Your task to perform on an android device: toggle notifications settings in the gmail app Image 0: 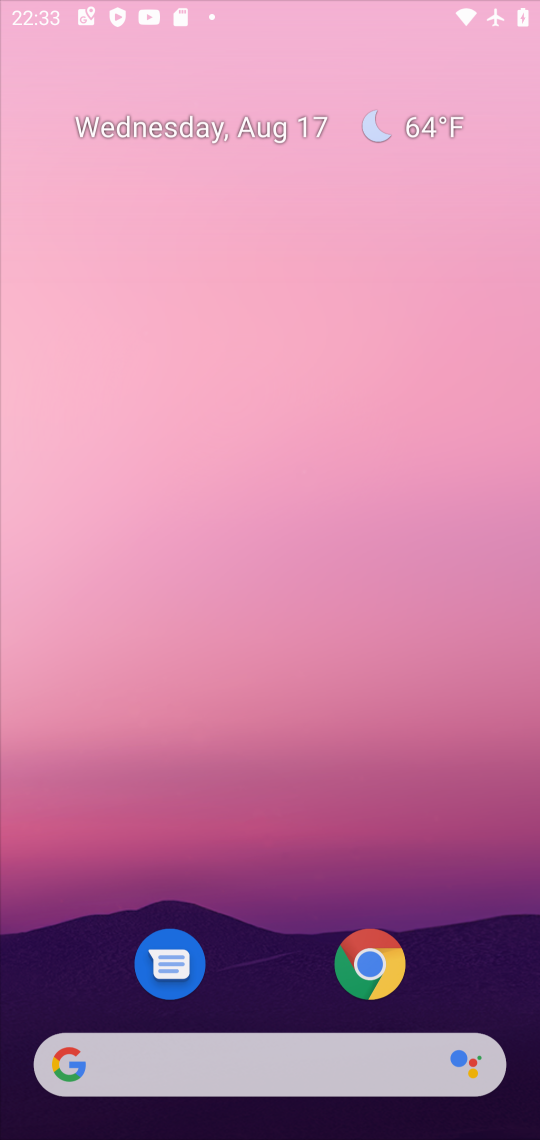
Step 0: press home button
Your task to perform on an android device: toggle notifications settings in the gmail app Image 1: 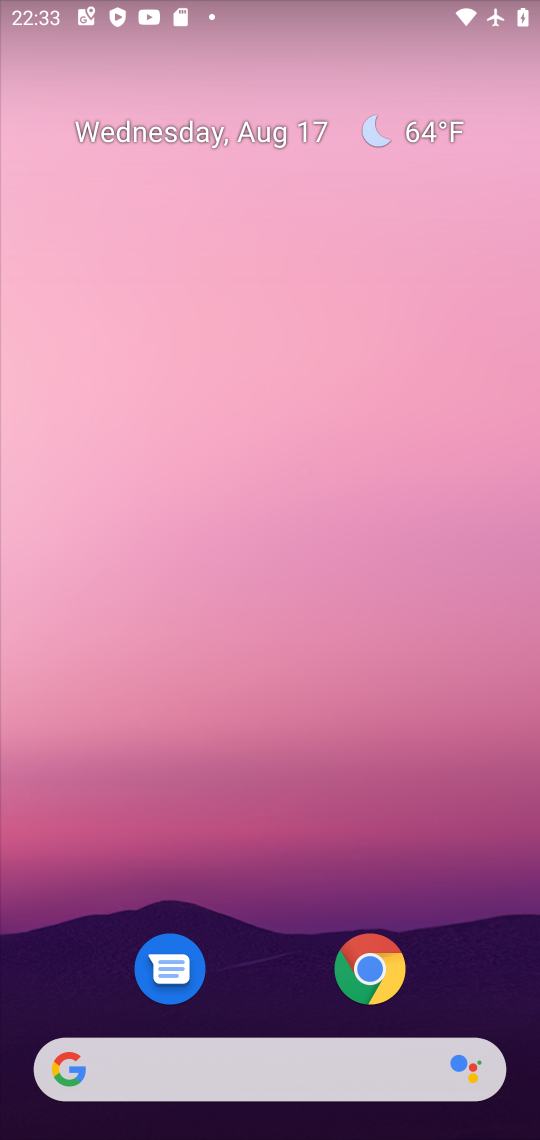
Step 1: drag from (270, 974) to (154, 266)
Your task to perform on an android device: toggle notifications settings in the gmail app Image 2: 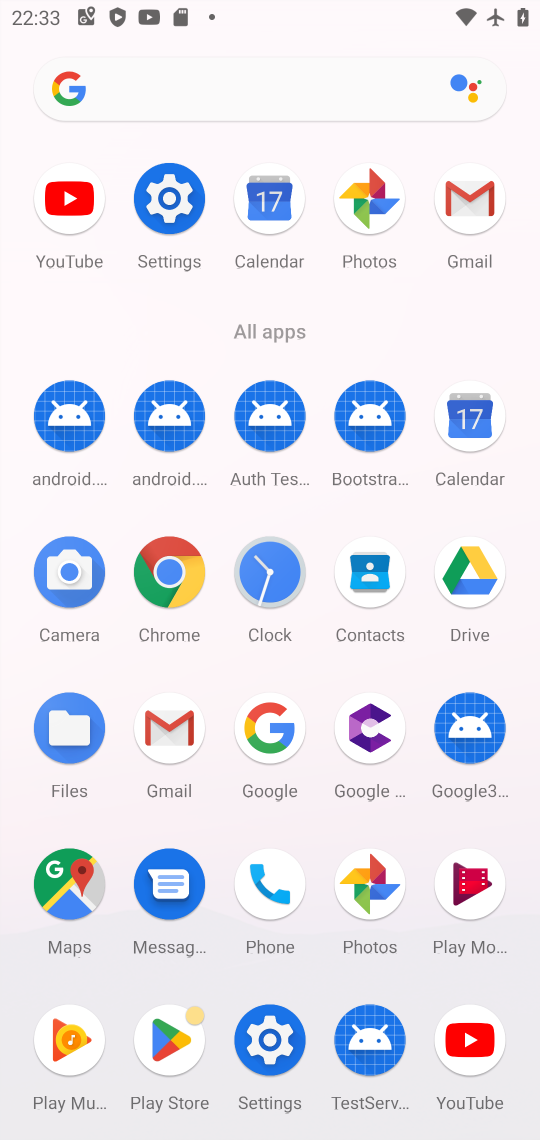
Step 2: click (464, 201)
Your task to perform on an android device: toggle notifications settings in the gmail app Image 3: 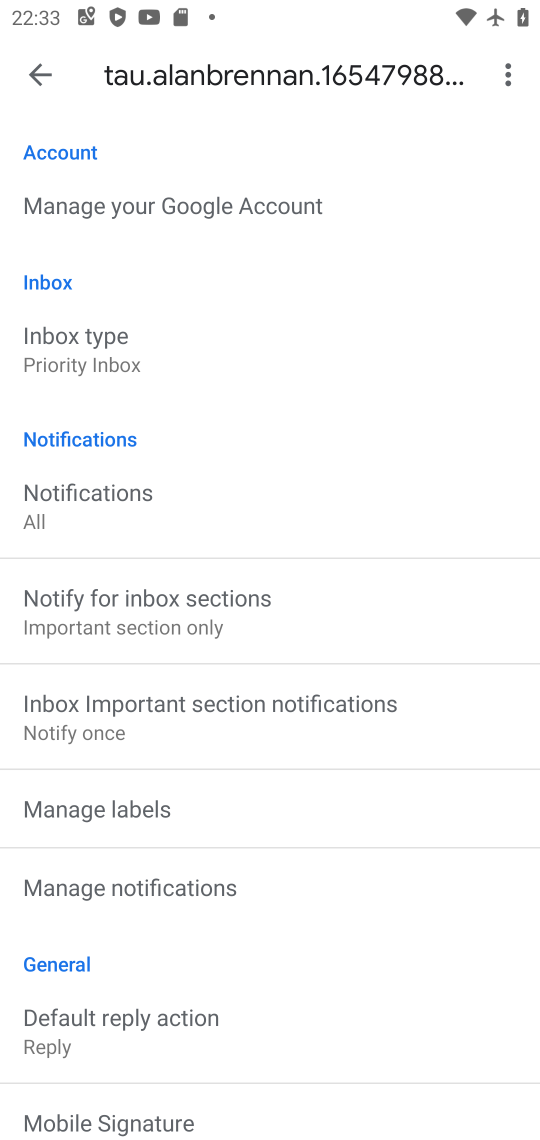
Step 3: click (38, 76)
Your task to perform on an android device: toggle notifications settings in the gmail app Image 4: 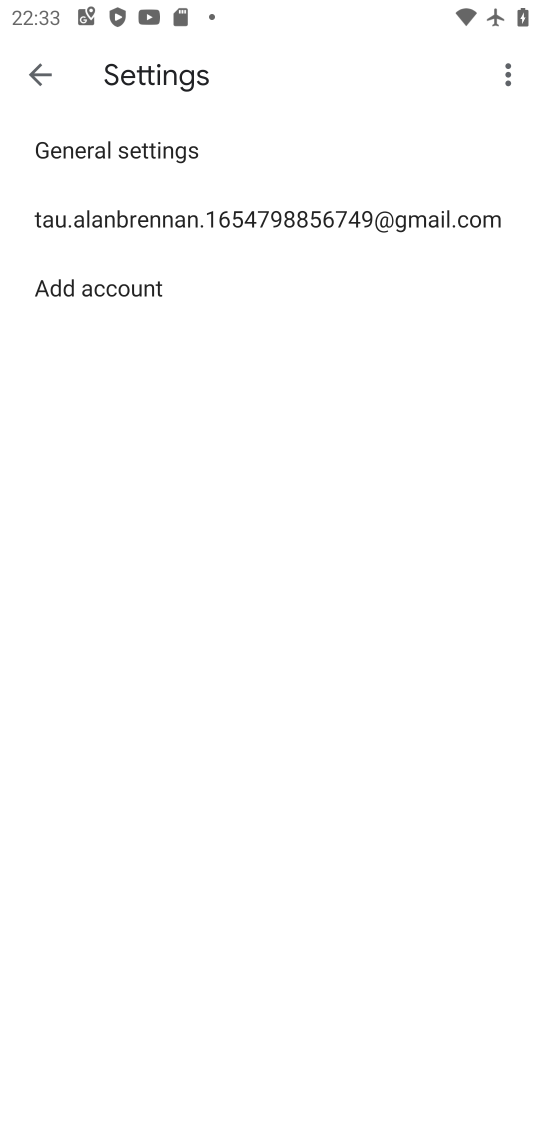
Step 4: click (79, 145)
Your task to perform on an android device: toggle notifications settings in the gmail app Image 5: 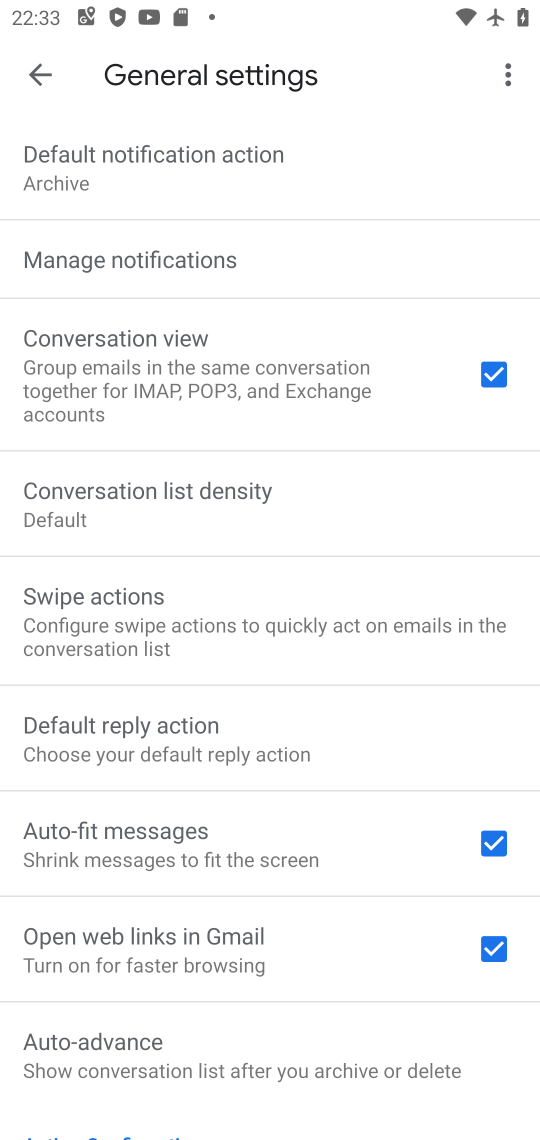
Step 5: click (108, 248)
Your task to perform on an android device: toggle notifications settings in the gmail app Image 6: 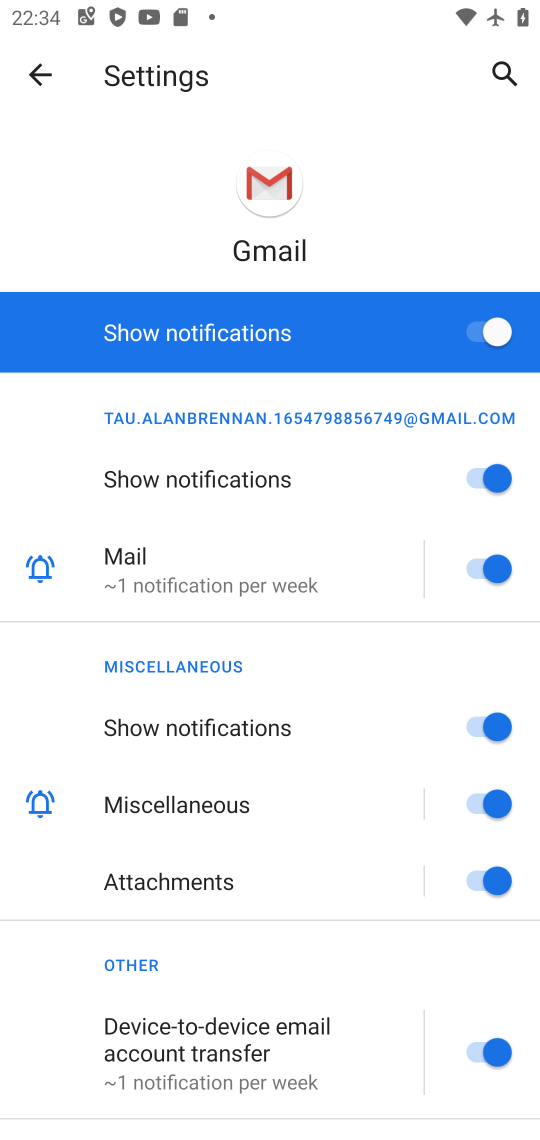
Step 6: click (502, 327)
Your task to perform on an android device: toggle notifications settings in the gmail app Image 7: 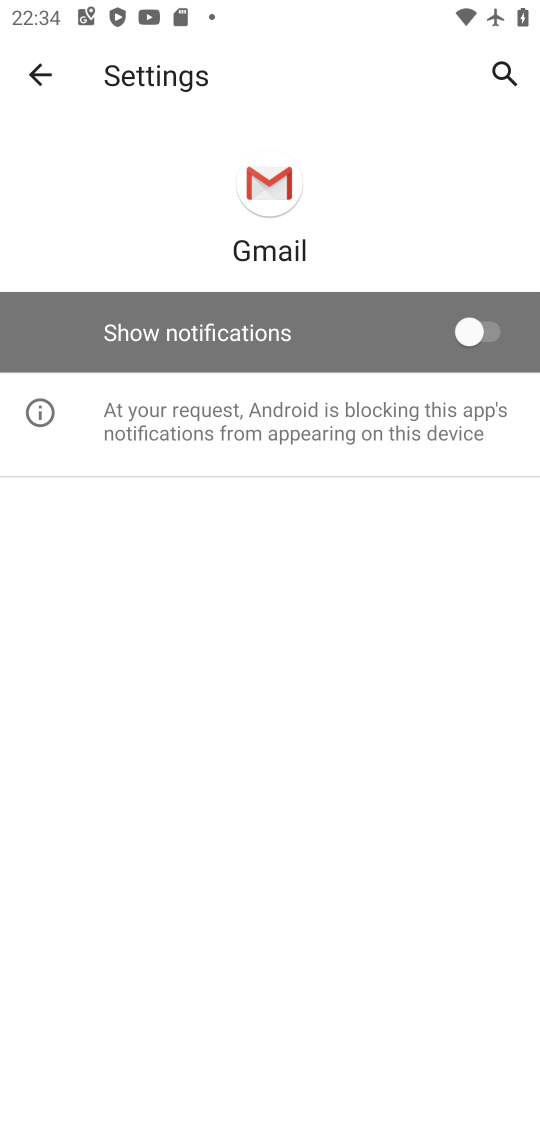
Step 7: task complete